Your task to perform on an android device: open wifi settings Image 0: 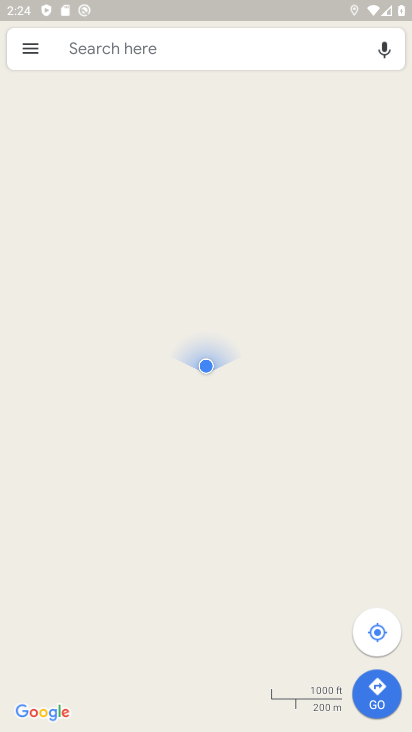
Step 0: press back button
Your task to perform on an android device: open wifi settings Image 1: 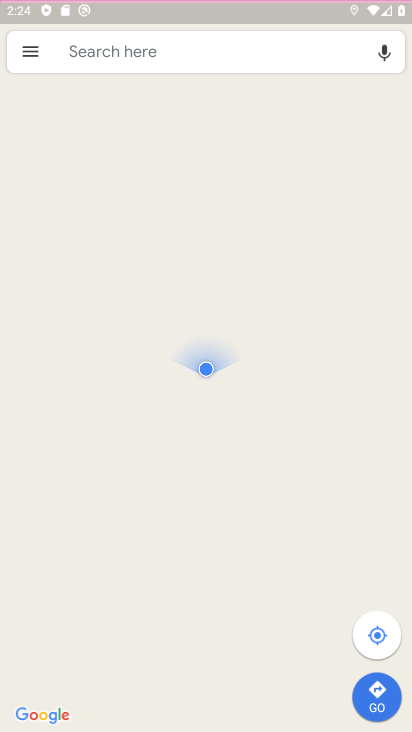
Step 1: press back button
Your task to perform on an android device: open wifi settings Image 2: 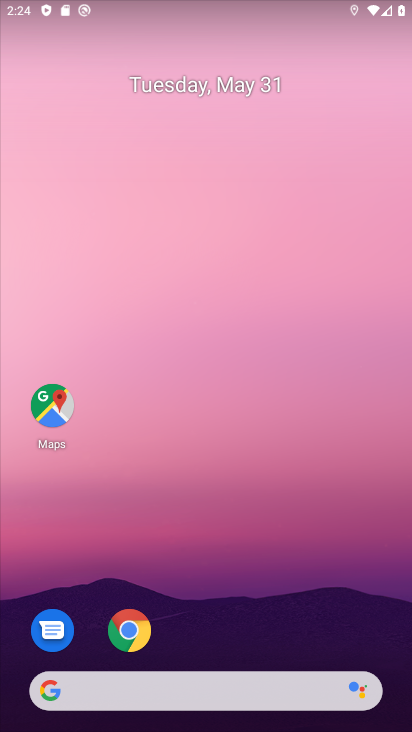
Step 2: drag from (63, 38) to (86, 543)
Your task to perform on an android device: open wifi settings Image 3: 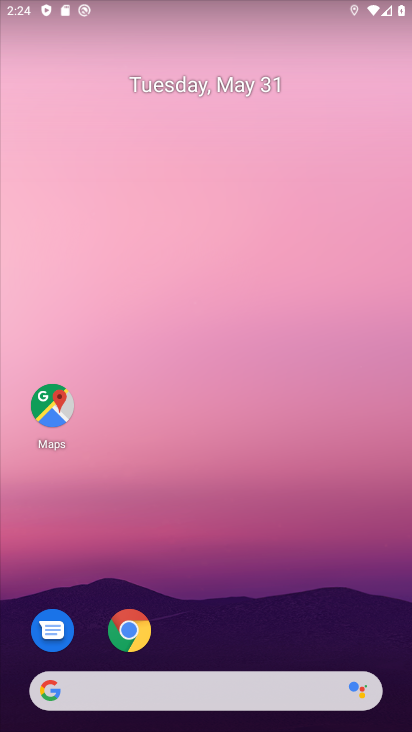
Step 3: drag from (31, 0) to (65, 463)
Your task to perform on an android device: open wifi settings Image 4: 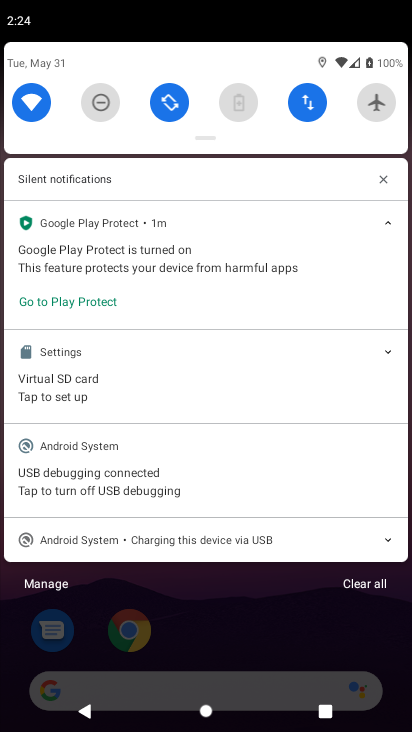
Step 4: click (30, 101)
Your task to perform on an android device: open wifi settings Image 5: 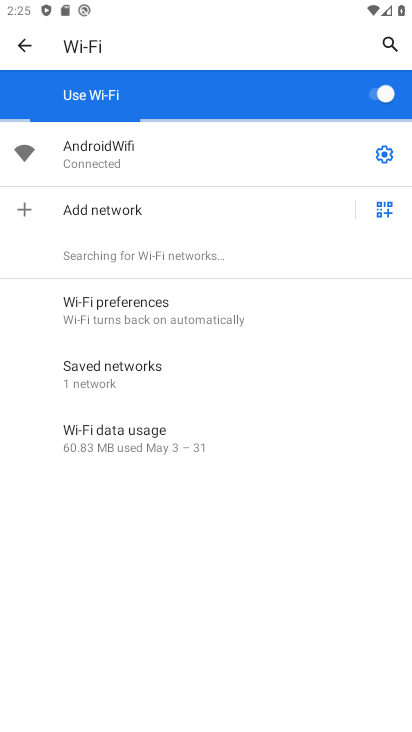
Step 5: task complete